Your task to perform on an android device: Open battery settings Image 0: 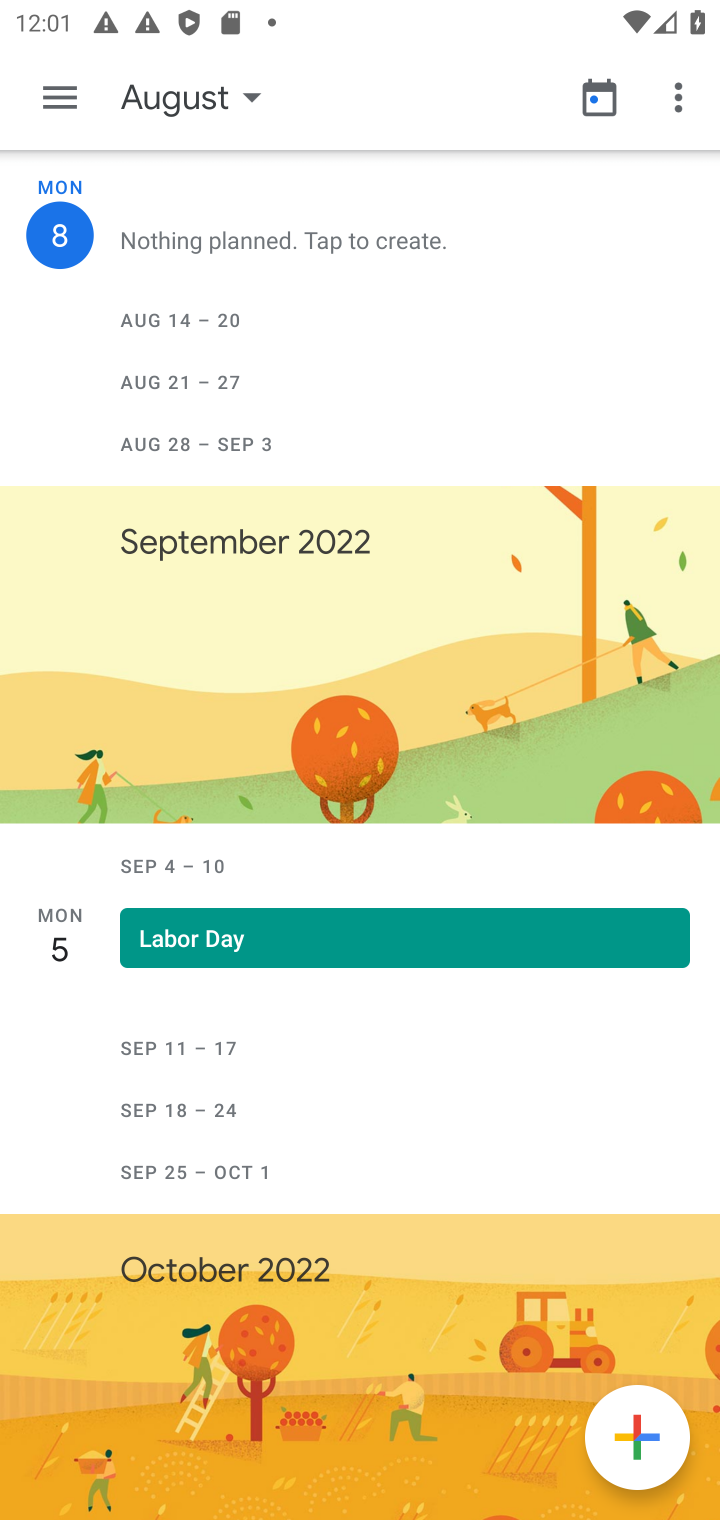
Step 0: press home button
Your task to perform on an android device: Open battery settings Image 1: 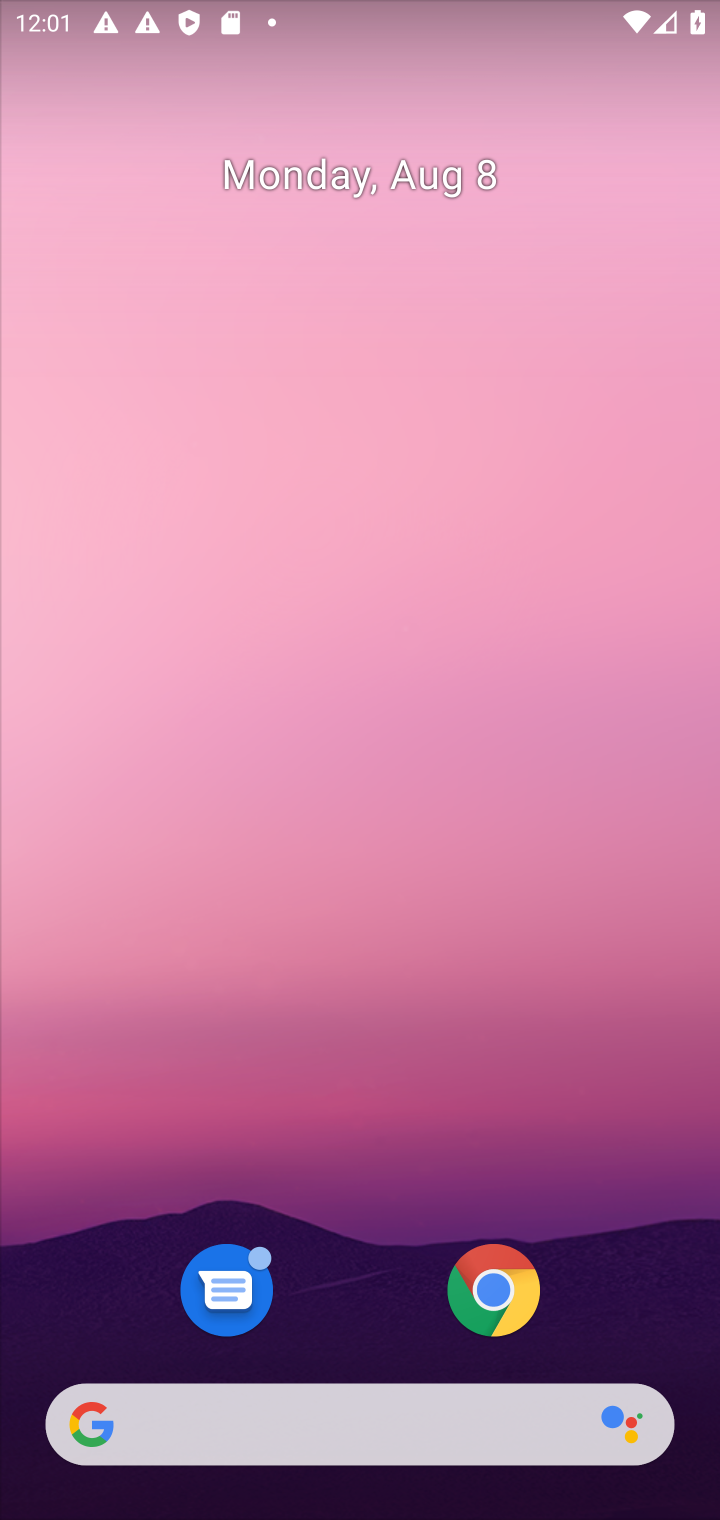
Step 1: drag from (344, 1302) to (507, 94)
Your task to perform on an android device: Open battery settings Image 2: 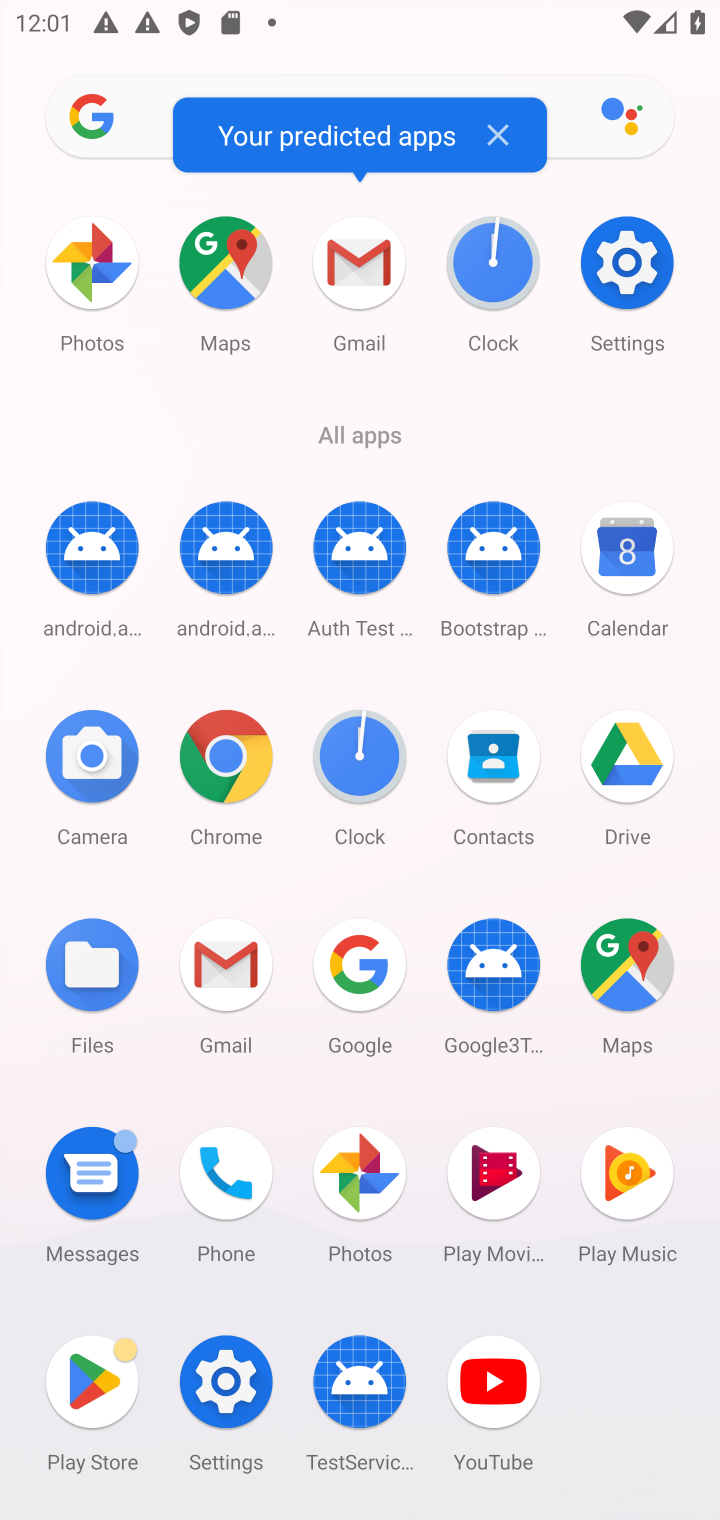
Step 2: click (243, 1378)
Your task to perform on an android device: Open battery settings Image 3: 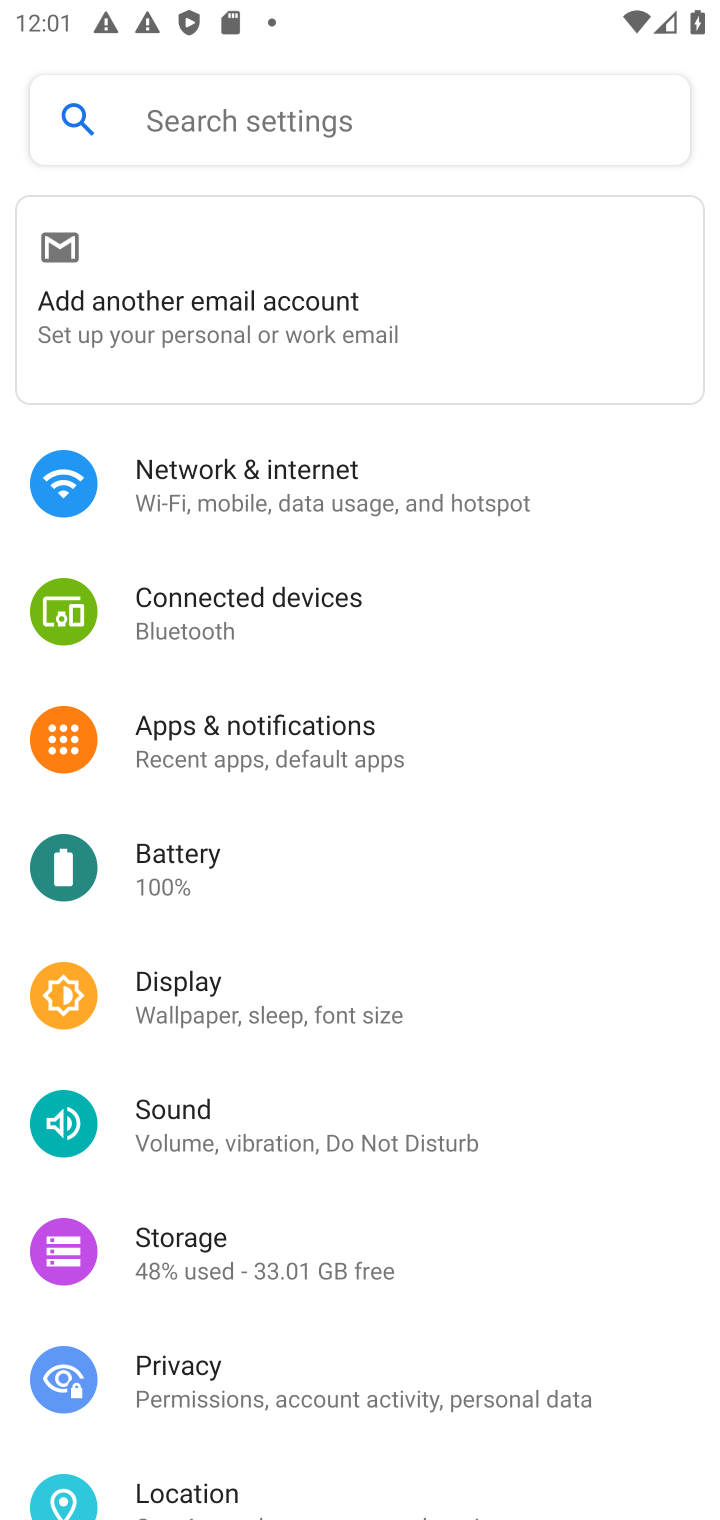
Step 3: click (213, 866)
Your task to perform on an android device: Open battery settings Image 4: 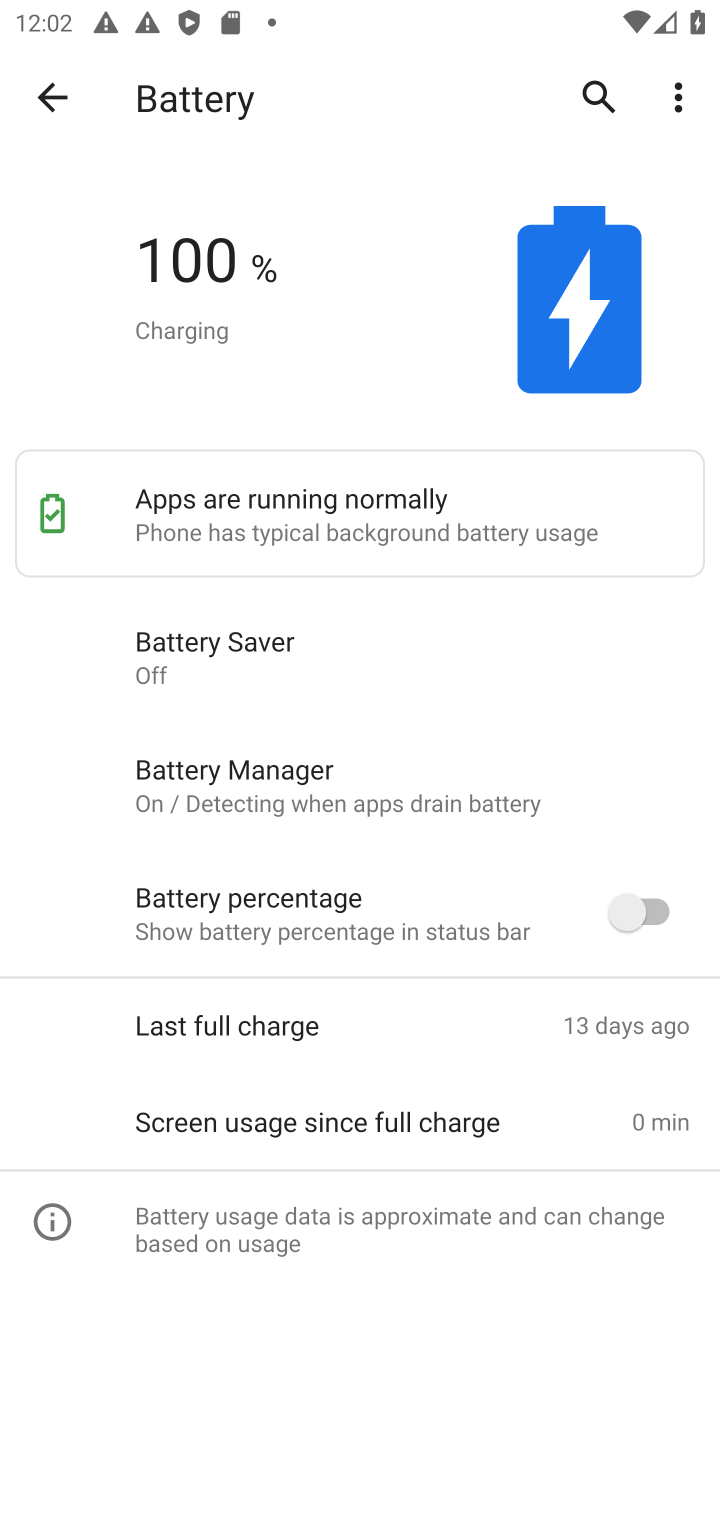
Step 4: task complete